Your task to perform on an android device: turn off wifi Image 0: 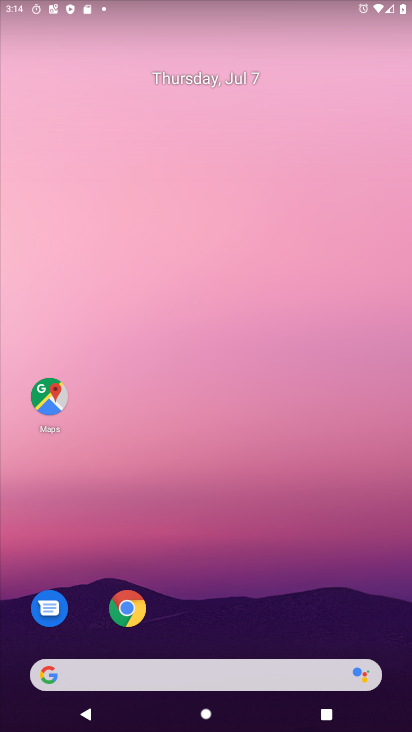
Step 0: drag from (250, 688) to (248, 78)
Your task to perform on an android device: turn off wifi Image 1: 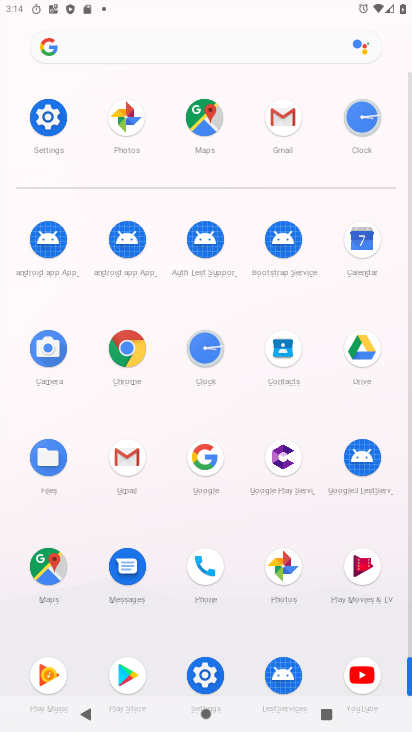
Step 1: click (43, 116)
Your task to perform on an android device: turn off wifi Image 2: 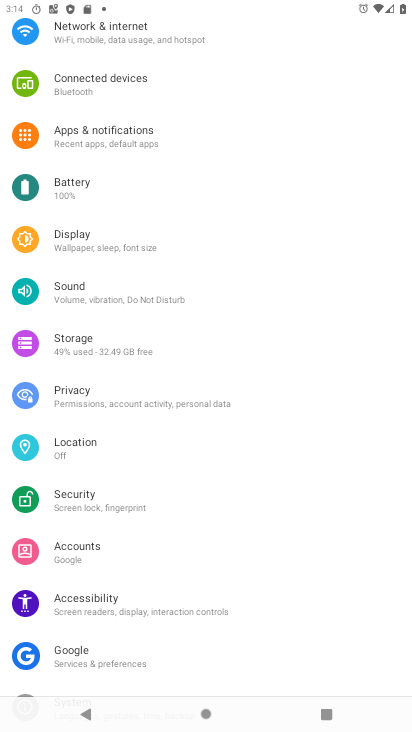
Step 2: click (93, 37)
Your task to perform on an android device: turn off wifi Image 3: 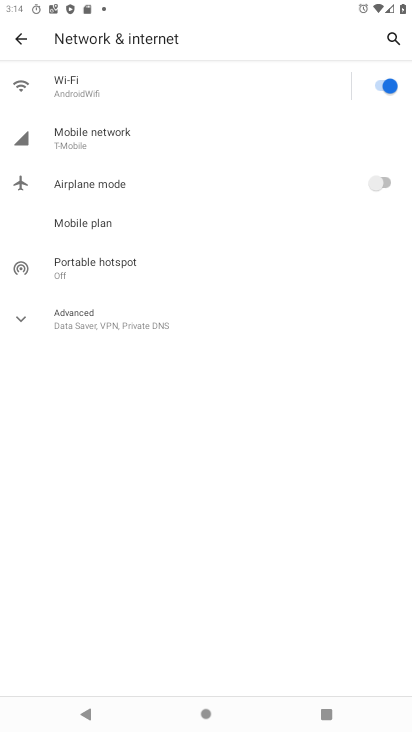
Step 3: click (379, 83)
Your task to perform on an android device: turn off wifi Image 4: 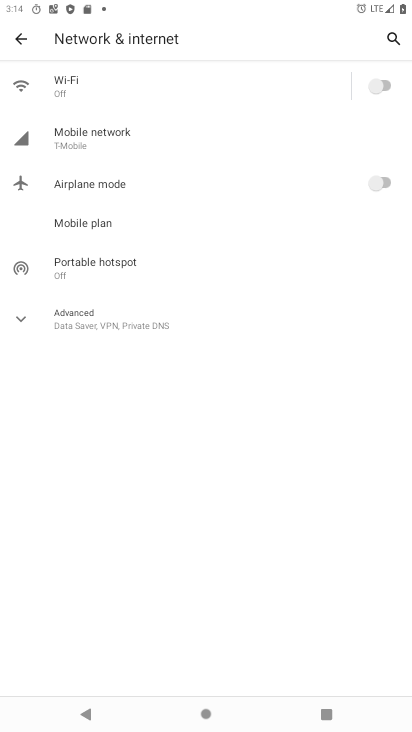
Step 4: task complete